Your task to perform on an android device: Open calendar and show me the second week of next month Image 0: 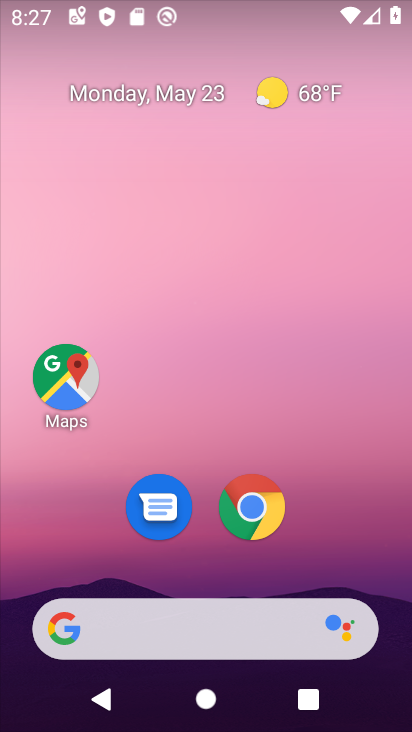
Step 0: drag from (203, 578) to (271, 136)
Your task to perform on an android device: Open calendar and show me the second week of next month Image 1: 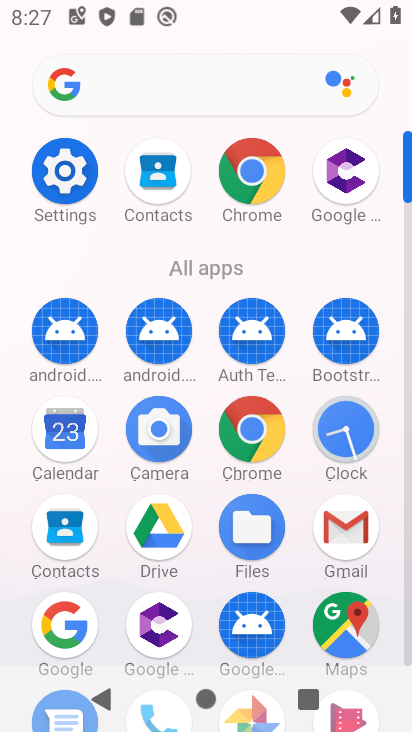
Step 1: click (69, 427)
Your task to perform on an android device: Open calendar and show me the second week of next month Image 2: 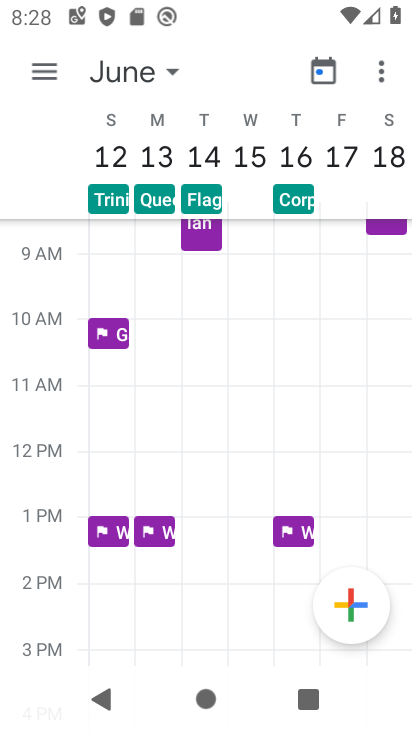
Step 2: task complete